Your task to perform on an android device: turn off smart reply in the gmail app Image 0: 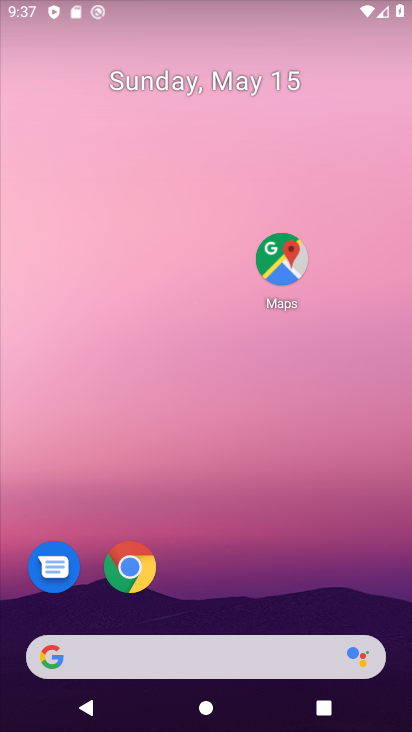
Step 0: drag from (225, 589) to (179, 160)
Your task to perform on an android device: turn off smart reply in the gmail app Image 1: 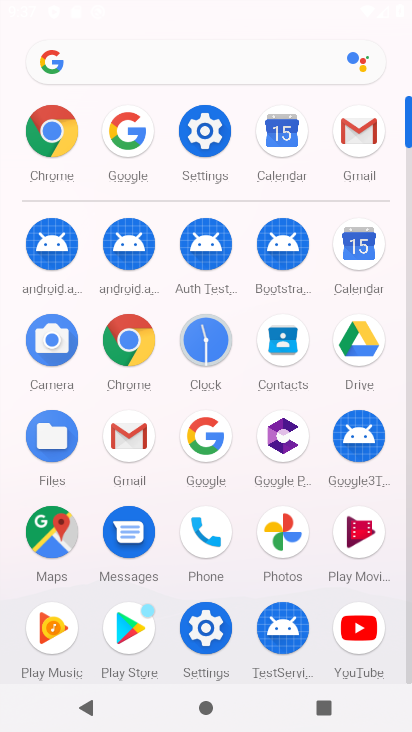
Step 1: click (364, 127)
Your task to perform on an android device: turn off smart reply in the gmail app Image 2: 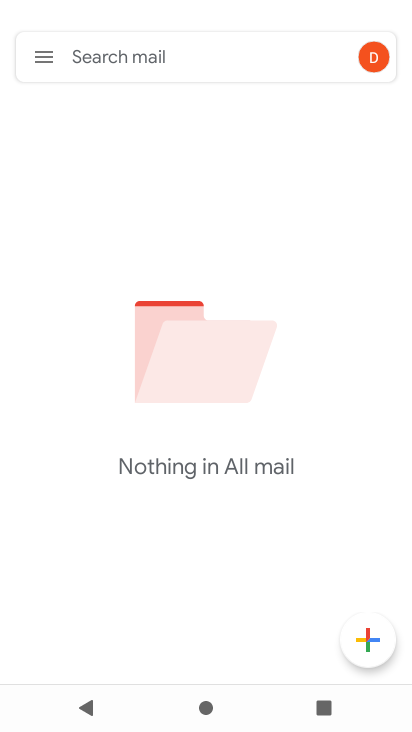
Step 2: drag from (256, 584) to (80, 90)
Your task to perform on an android device: turn off smart reply in the gmail app Image 3: 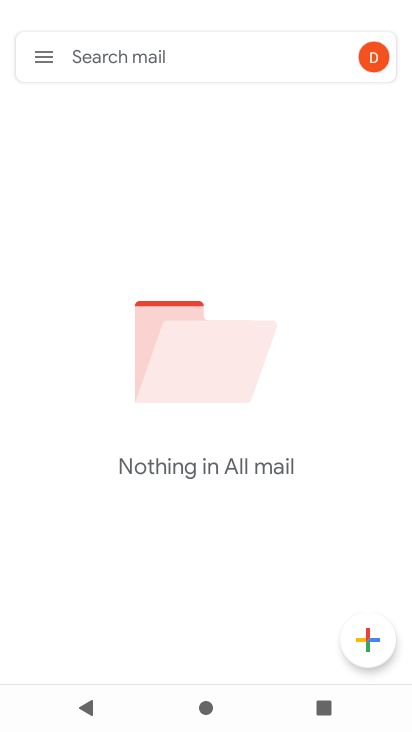
Step 3: click (39, 60)
Your task to perform on an android device: turn off smart reply in the gmail app Image 4: 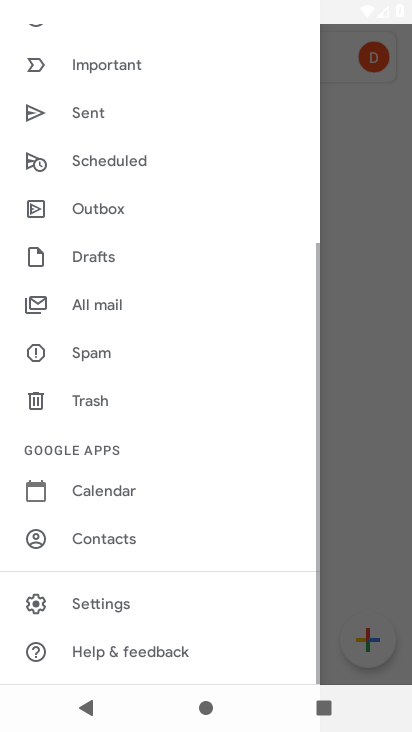
Step 4: click (117, 601)
Your task to perform on an android device: turn off smart reply in the gmail app Image 5: 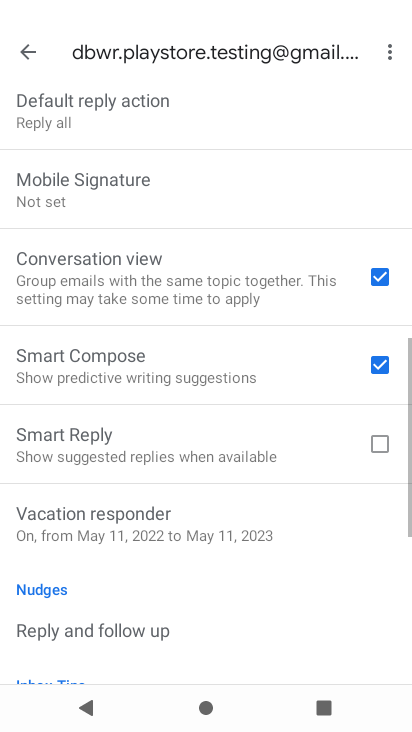
Step 5: task complete